Your task to perform on an android device: delete location history Image 0: 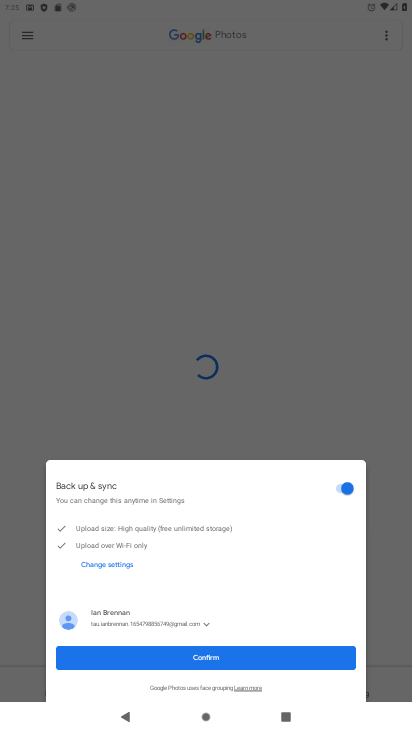
Step 0: press home button
Your task to perform on an android device: delete location history Image 1: 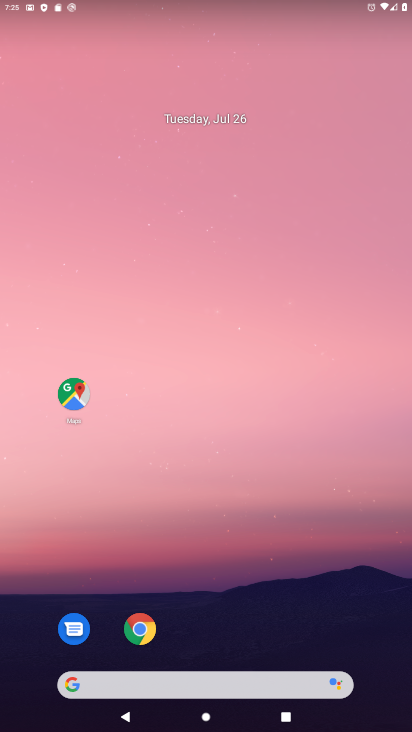
Step 1: click (78, 389)
Your task to perform on an android device: delete location history Image 2: 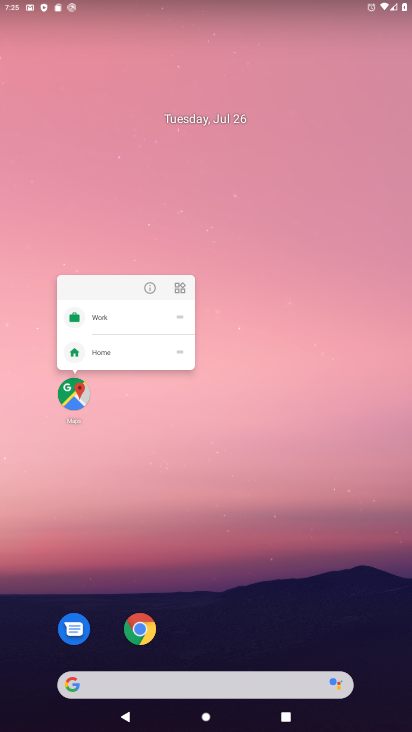
Step 2: click (79, 400)
Your task to perform on an android device: delete location history Image 3: 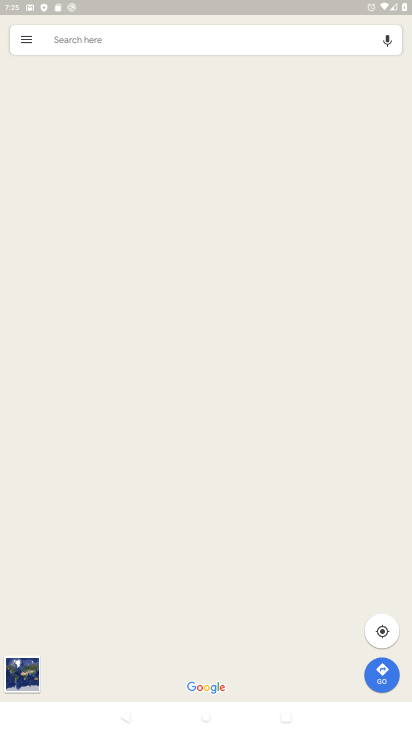
Step 3: click (28, 35)
Your task to perform on an android device: delete location history Image 4: 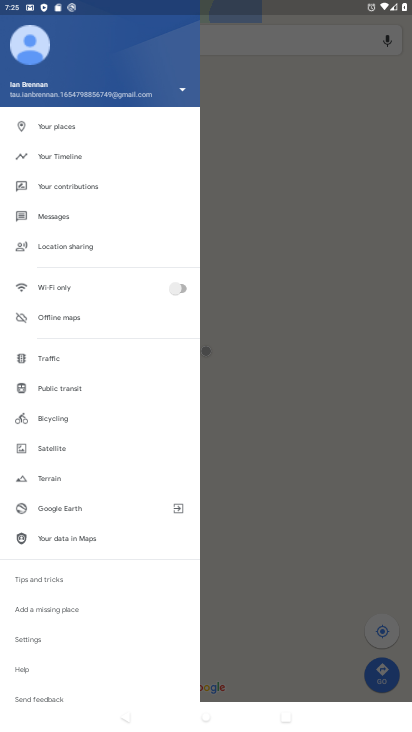
Step 4: click (67, 158)
Your task to perform on an android device: delete location history Image 5: 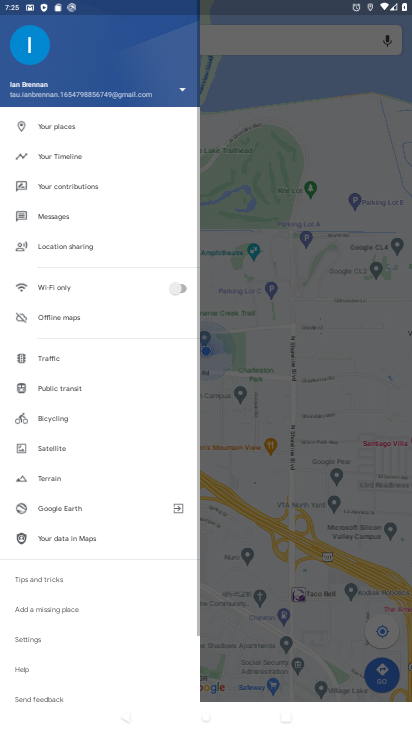
Step 5: click (49, 159)
Your task to perform on an android device: delete location history Image 6: 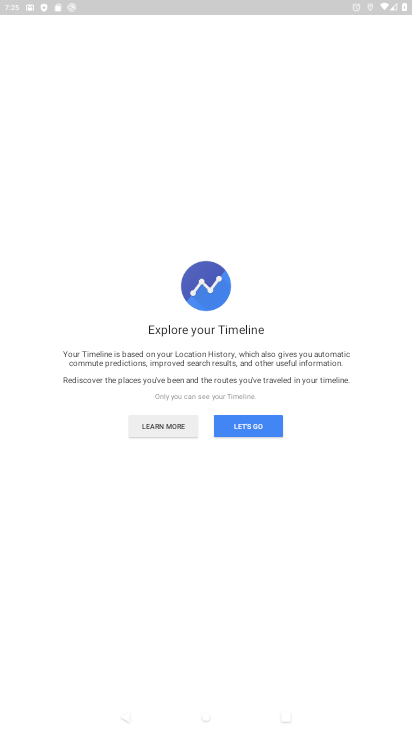
Step 6: click (235, 424)
Your task to perform on an android device: delete location history Image 7: 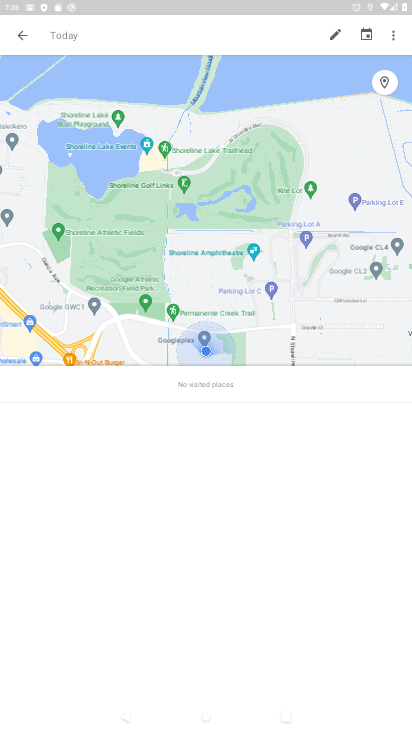
Step 7: click (399, 30)
Your task to perform on an android device: delete location history Image 8: 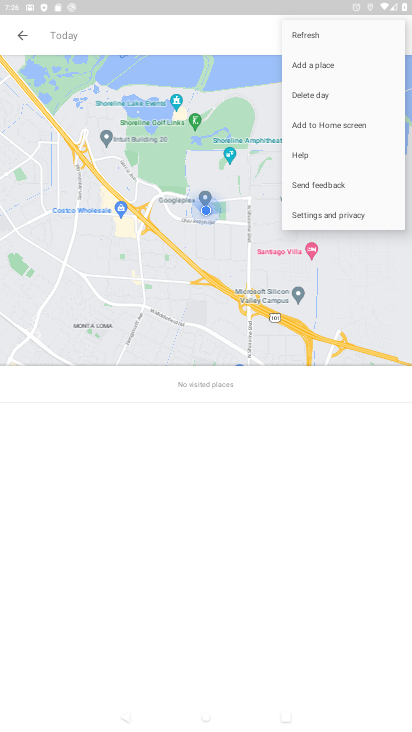
Step 8: click (319, 211)
Your task to perform on an android device: delete location history Image 9: 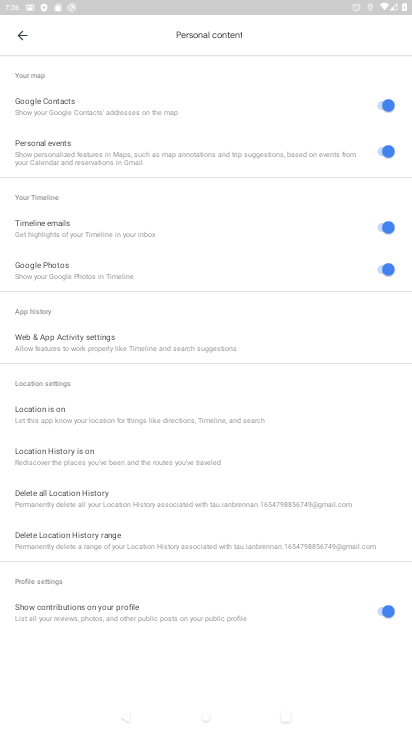
Step 9: click (93, 499)
Your task to perform on an android device: delete location history Image 10: 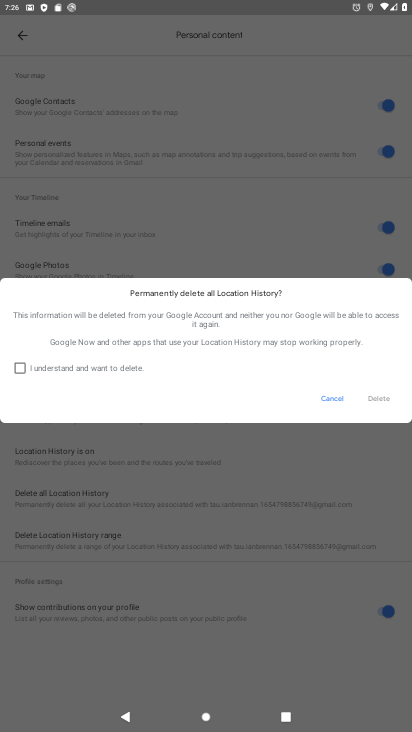
Step 10: click (15, 370)
Your task to perform on an android device: delete location history Image 11: 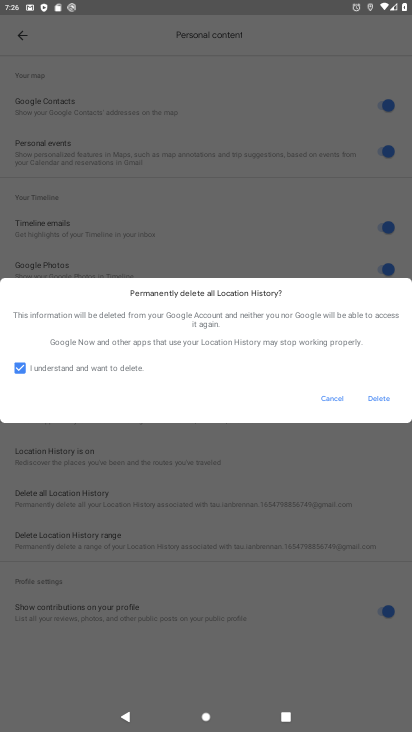
Step 11: click (386, 401)
Your task to perform on an android device: delete location history Image 12: 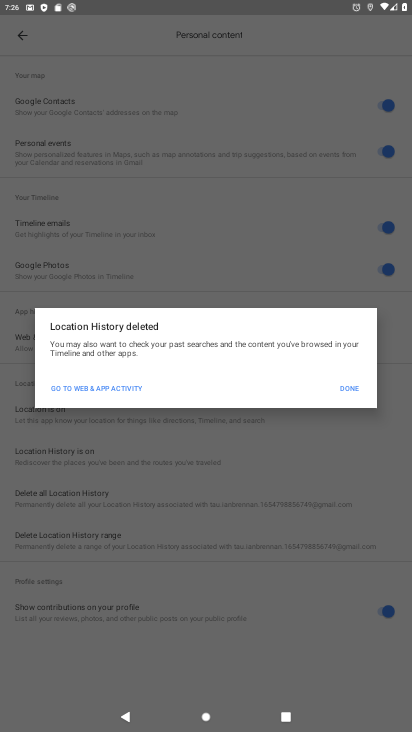
Step 12: task complete